Your task to perform on an android device: Add sony triple a to the cart on walmart.com Image 0: 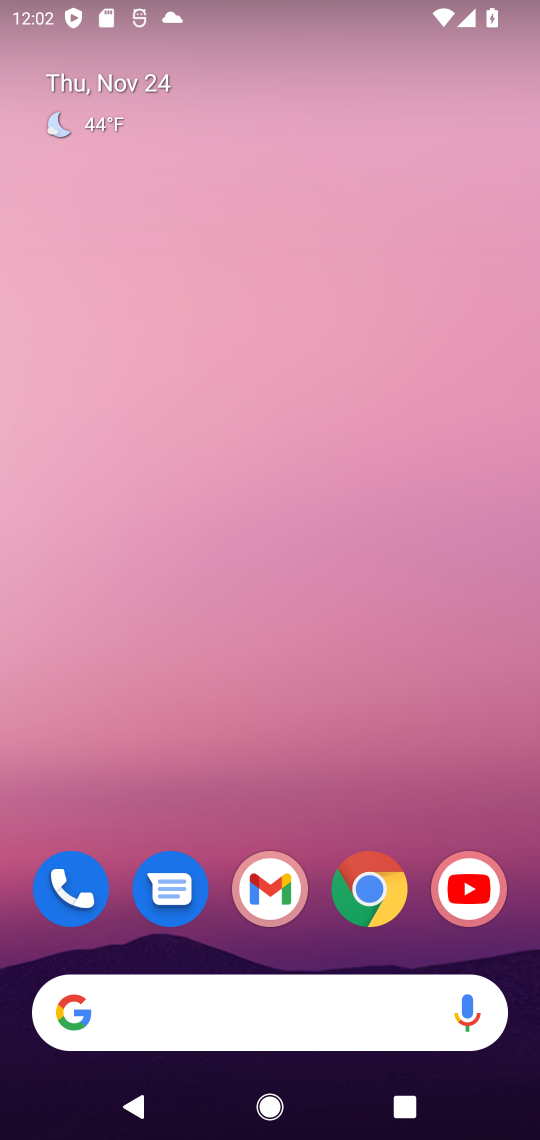
Step 0: click (376, 880)
Your task to perform on an android device: Add sony triple a to the cart on walmart.com Image 1: 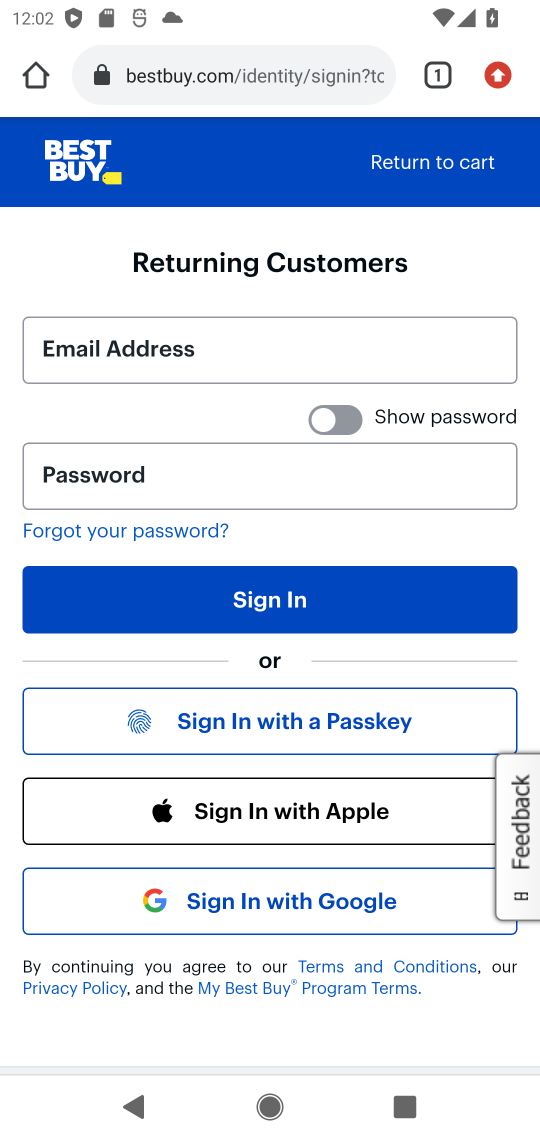
Step 1: click (205, 79)
Your task to perform on an android device: Add sony triple a to the cart on walmart.com Image 2: 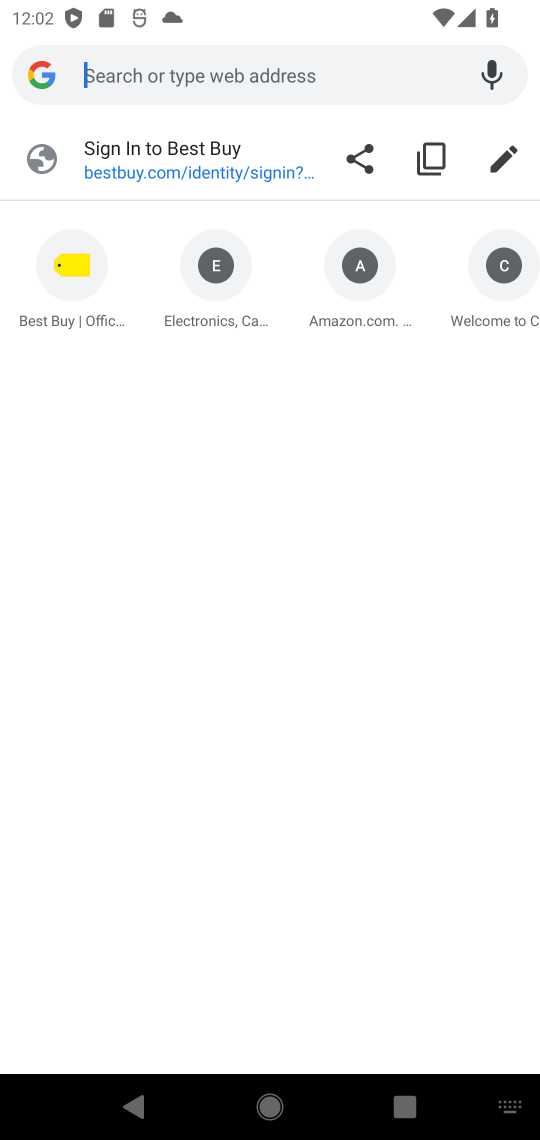
Step 2: type "walmart.com"
Your task to perform on an android device: Add sony triple a to the cart on walmart.com Image 3: 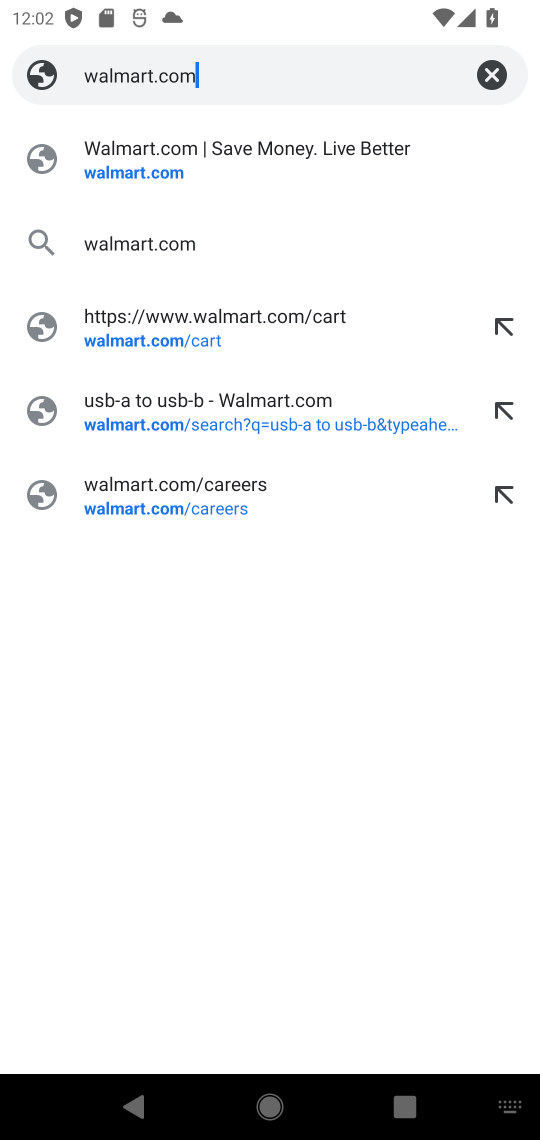
Step 3: click (133, 167)
Your task to perform on an android device: Add sony triple a to the cart on walmart.com Image 4: 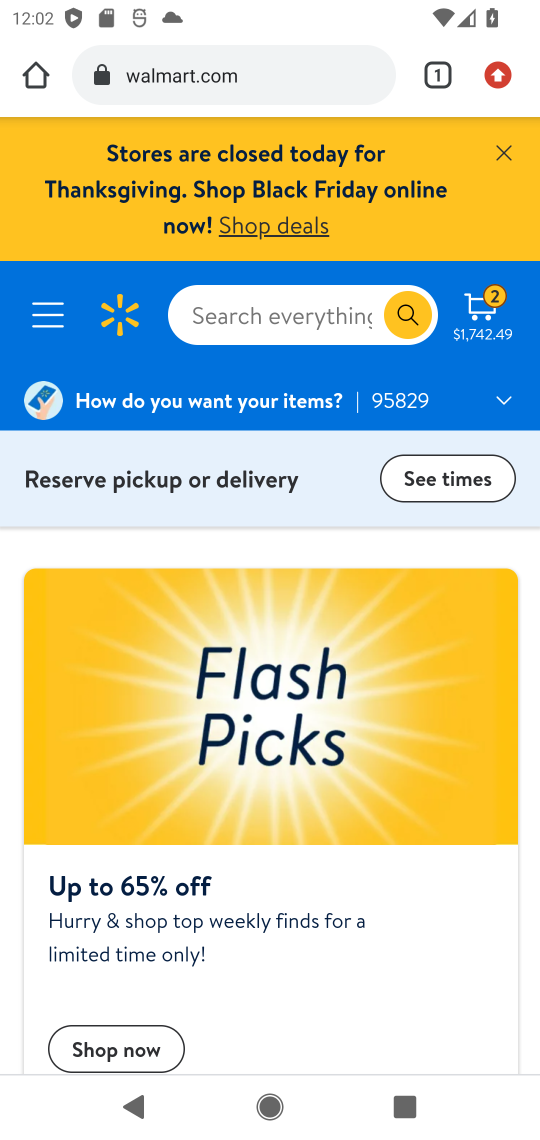
Step 4: click (214, 317)
Your task to perform on an android device: Add sony triple a to the cart on walmart.com Image 5: 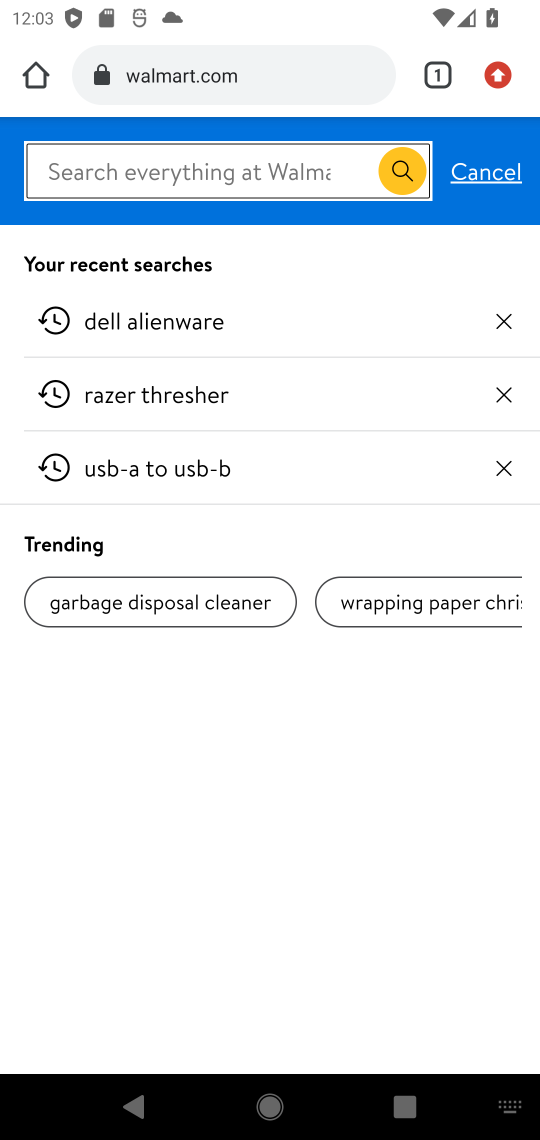
Step 5: type "sony triple a"
Your task to perform on an android device: Add sony triple a to the cart on walmart.com Image 6: 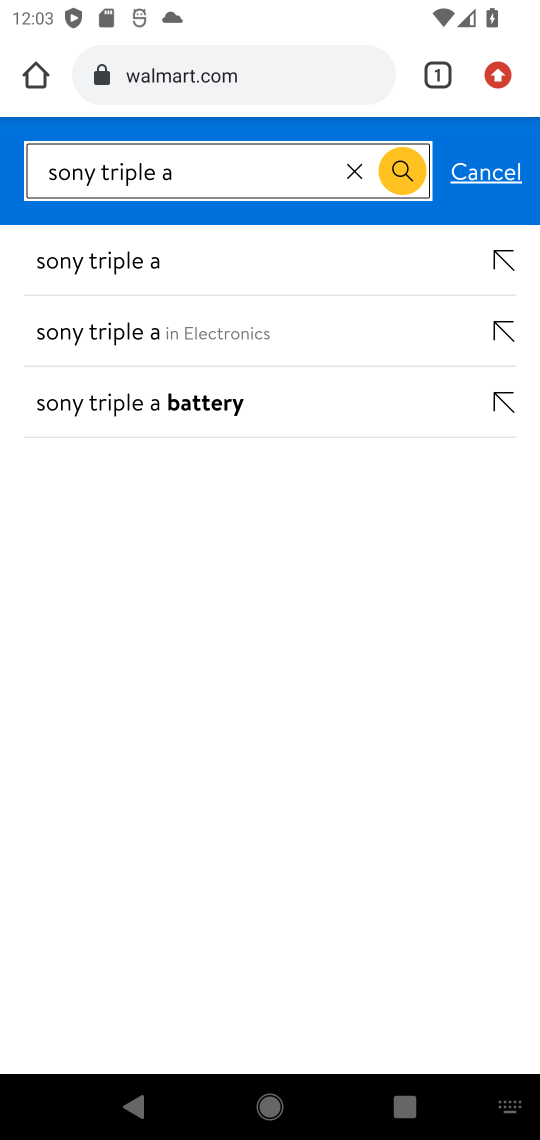
Step 6: click (125, 264)
Your task to perform on an android device: Add sony triple a to the cart on walmart.com Image 7: 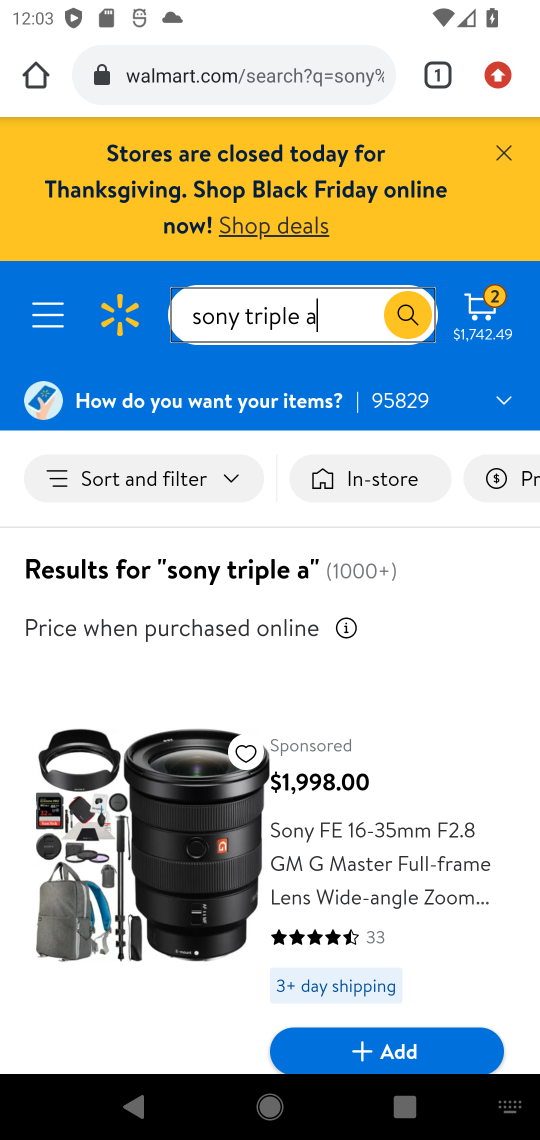
Step 7: drag from (215, 709) to (183, 470)
Your task to perform on an android device: Add sony triple a to the cart on walmart.com Image 8: 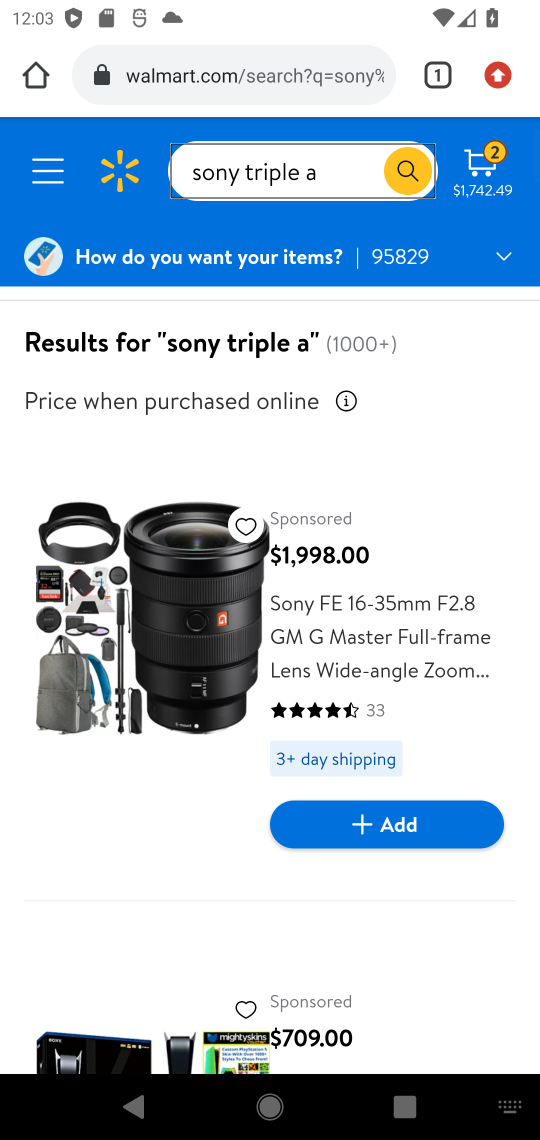
Step 8: drag from (177, 744) to (138, 234)
Your task to perform on an android device: Add sony triple a to the cart on walmart.com Image 9: 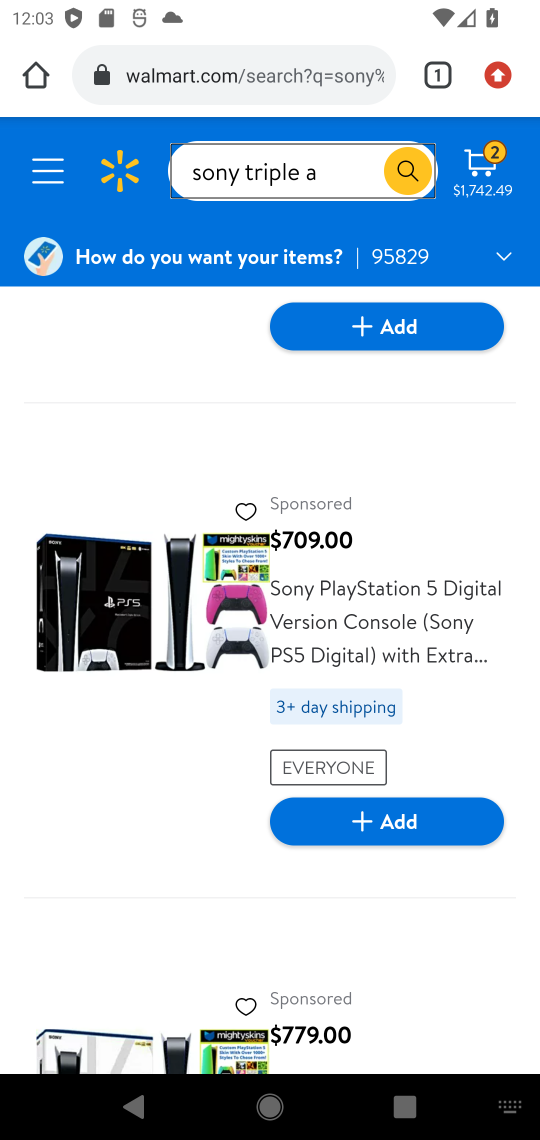
Step 9: drag from (115, 652) to (105, 343)
Your task to perform on an android device: Add sony triple a to the cart on walmart.com Image 10: 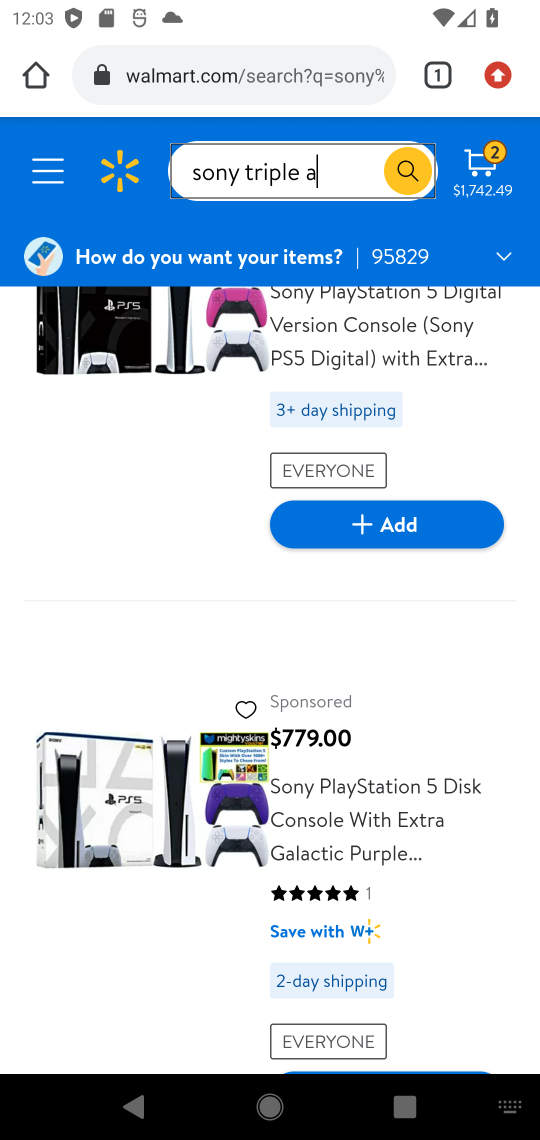
Step 10: drag from (125, 704) to (136, 343)
Your task to perform on an android device: Add sony triple a to the cart on walmart.com Image 11: 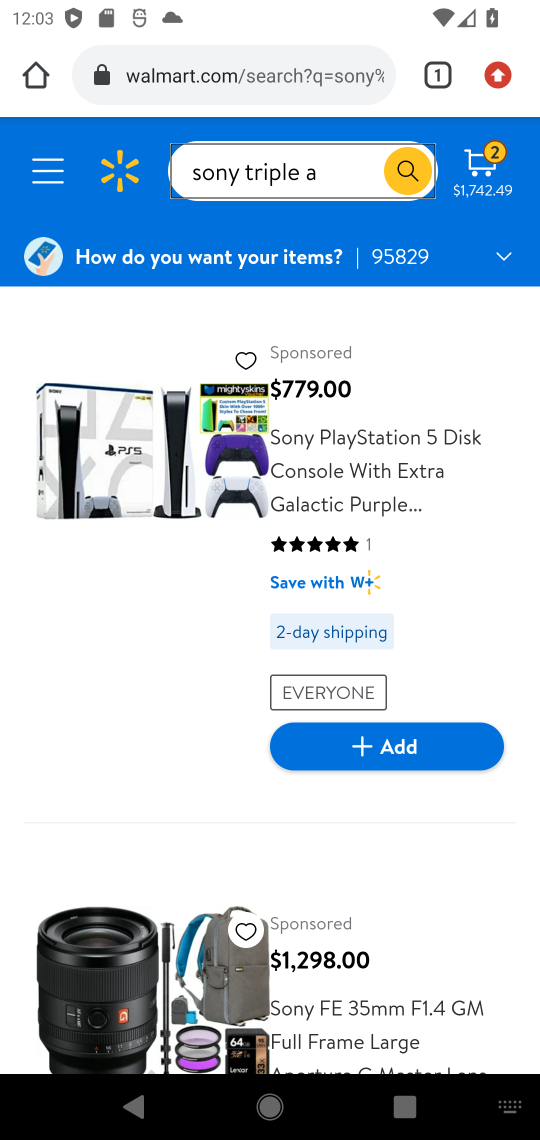
Step 11: drag from (127, 636) to (127, 368)
Your task to perform on an android device: Add sony triple a to the cart on walmart.com Image 12: 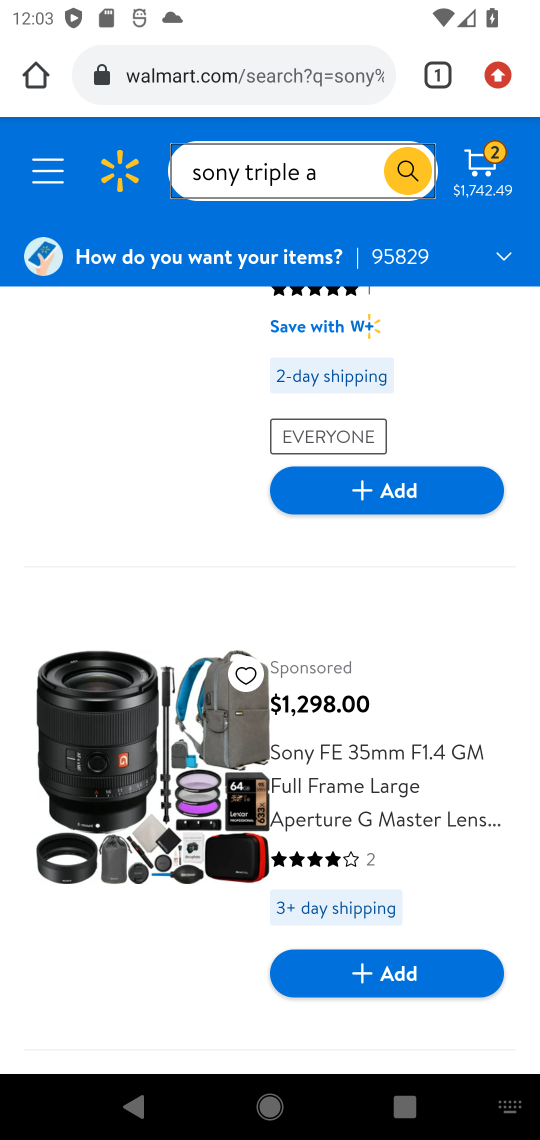
Step 12: drag from (156, 772) to (149, 468)
Your task to perform on an android device: Add sony triple a to the cart on walmart.com Image 13: 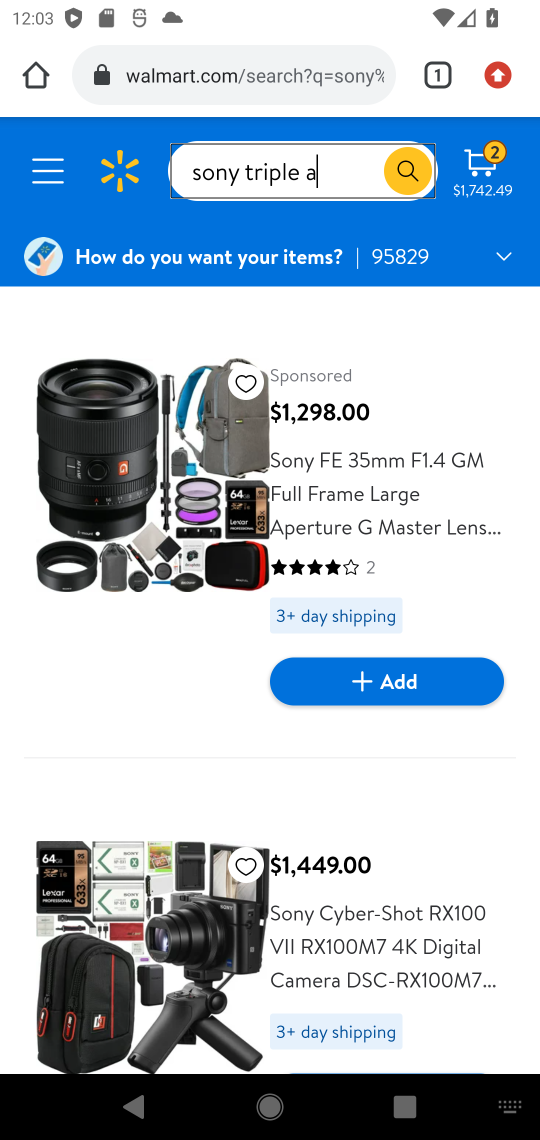
Step 13: drag from (133, 747) to (130, 511)
Your task to perform on an android device: Add sony triple a to the cart on walmart.com Image 14: 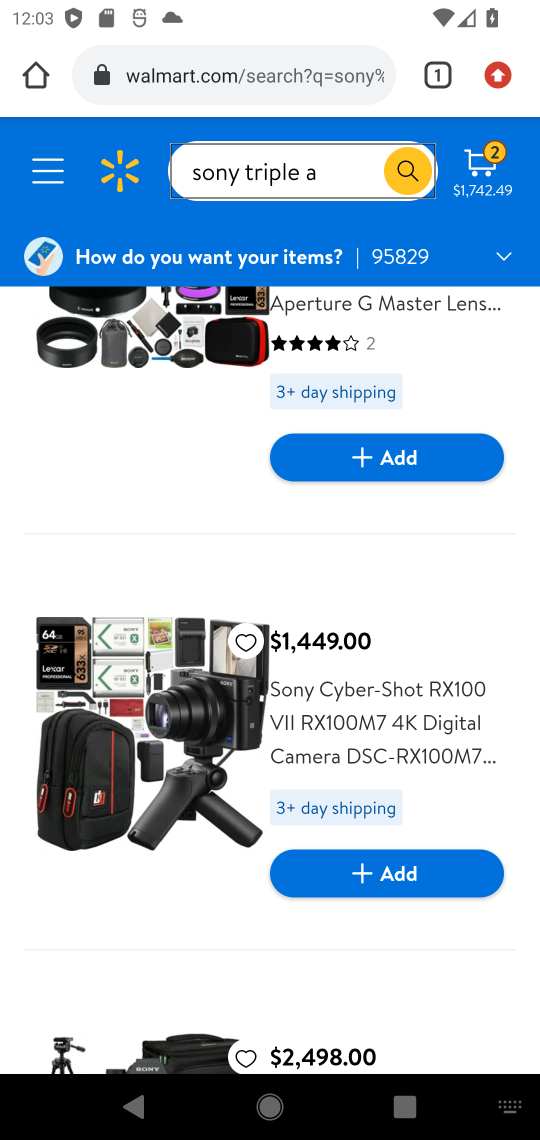
Step 14: drag from (120, 806) to (132, 465)
Your task to perform on an android device: Add sony triple a to the cart on walmart.com Image 15: 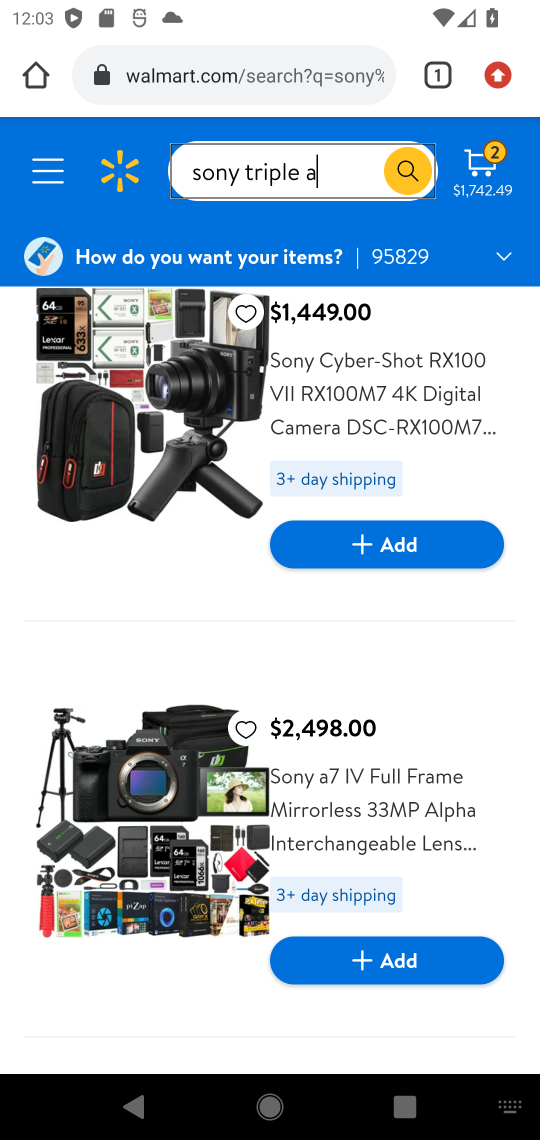
Step 15: drag from (133, 793) to (122, 493)
Your task to perform on an android device: Add sony triple a to the cart on walmart.com Image 16: 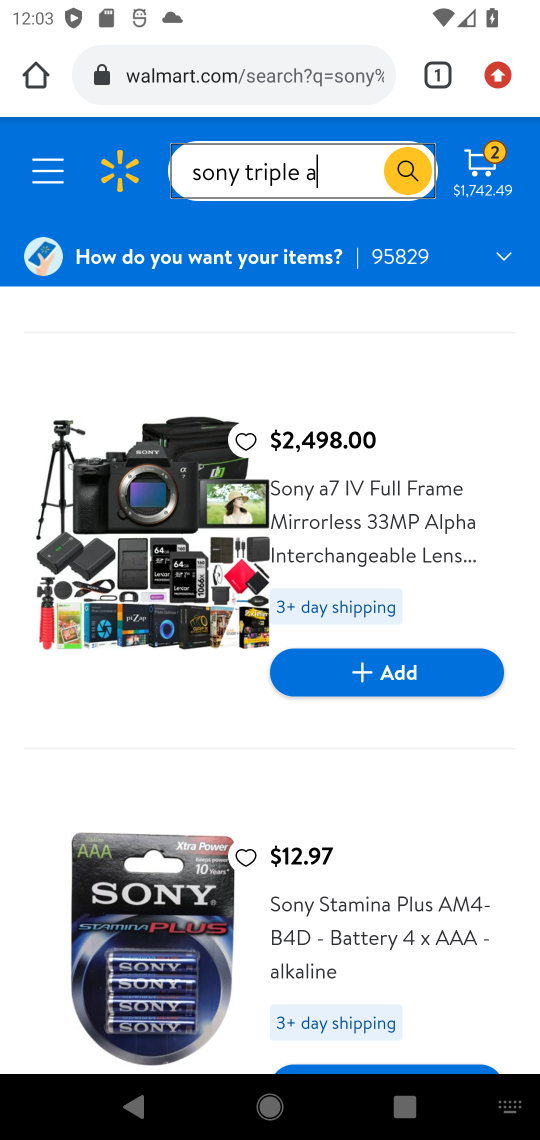
Step 16: drag from (173, 895) to (137, 586)
Your task to perform on an android device: Add sony triple a to the cart on walmart.com Image 17: 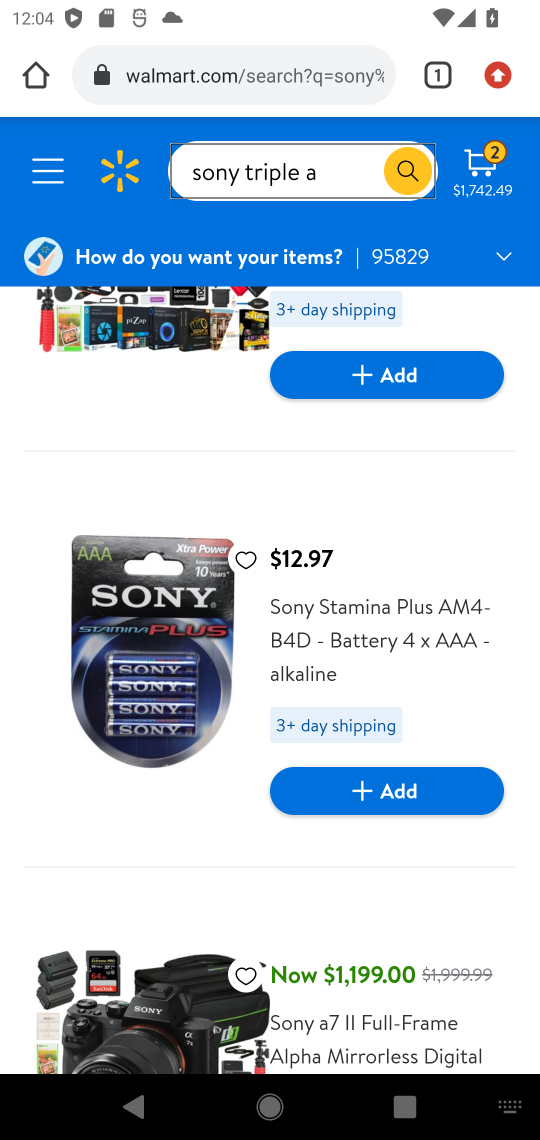
Step 17: click (363, 800)
Your task to perform on an android device: Add sony triple a to the cart on walmart.com Image 18: 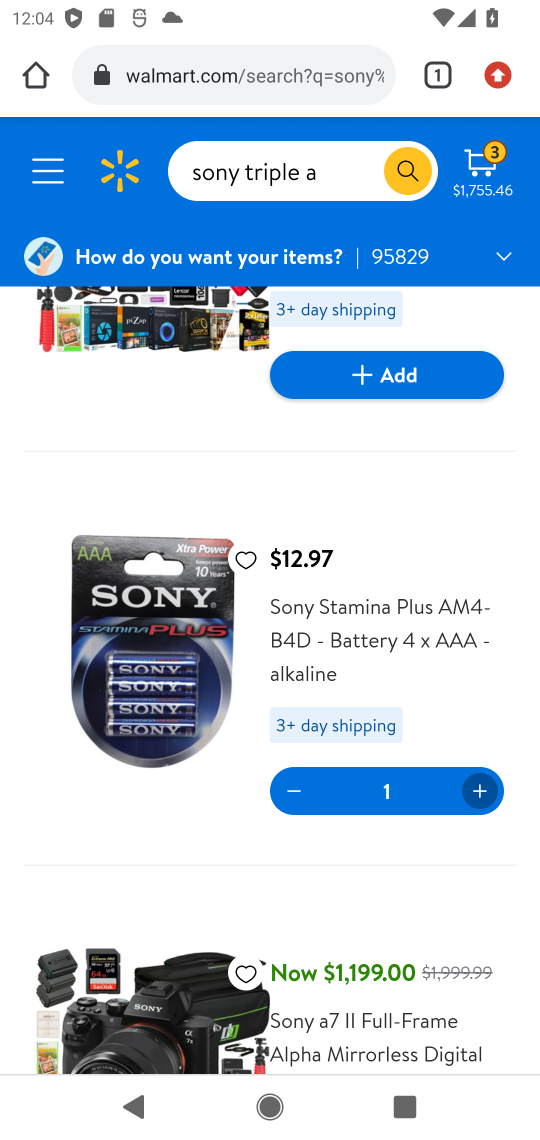
Step 18: task complete